Your task to perform on an android device: Add "bose soundlink" to the cart on costco.com Image 0: 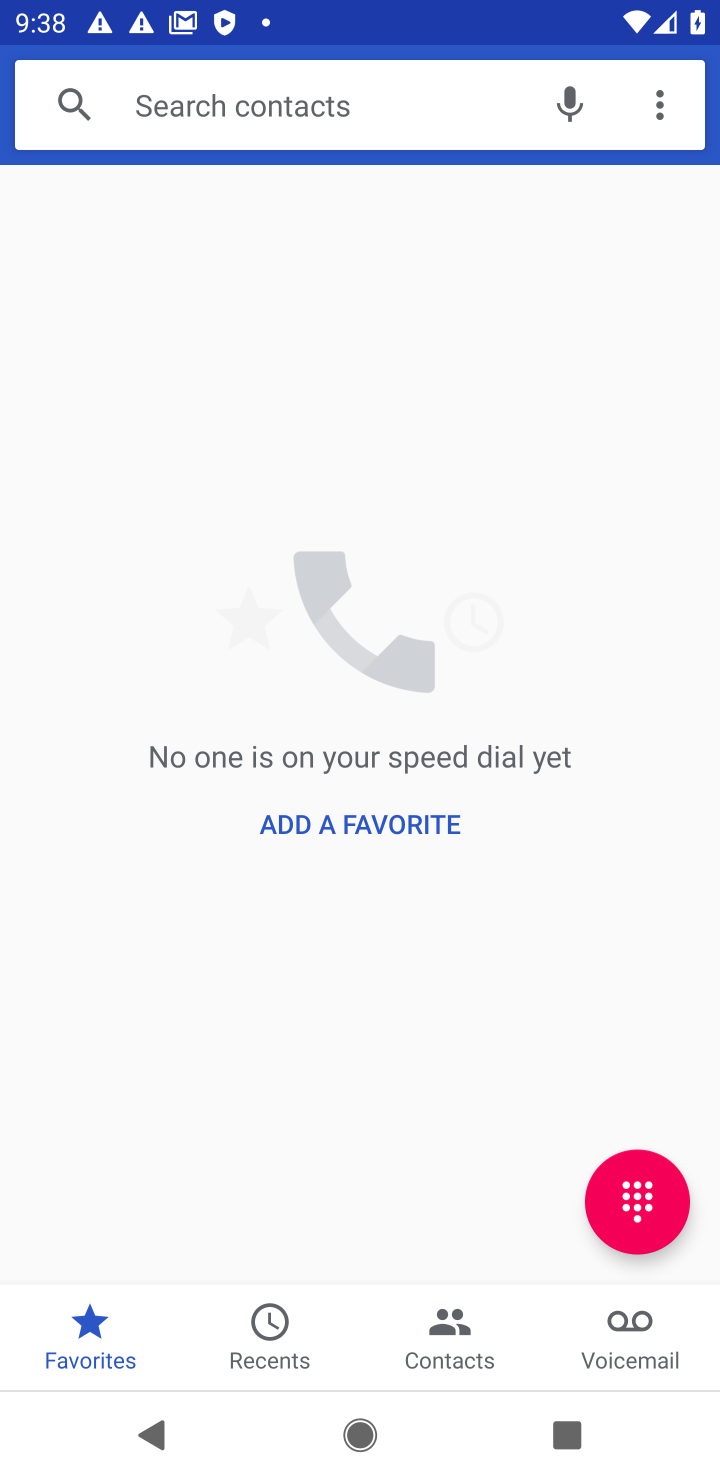
Step 0: press home button
Your task to perform on an android device: Add "bose soundlink" to the cart on costco.com Image 1: 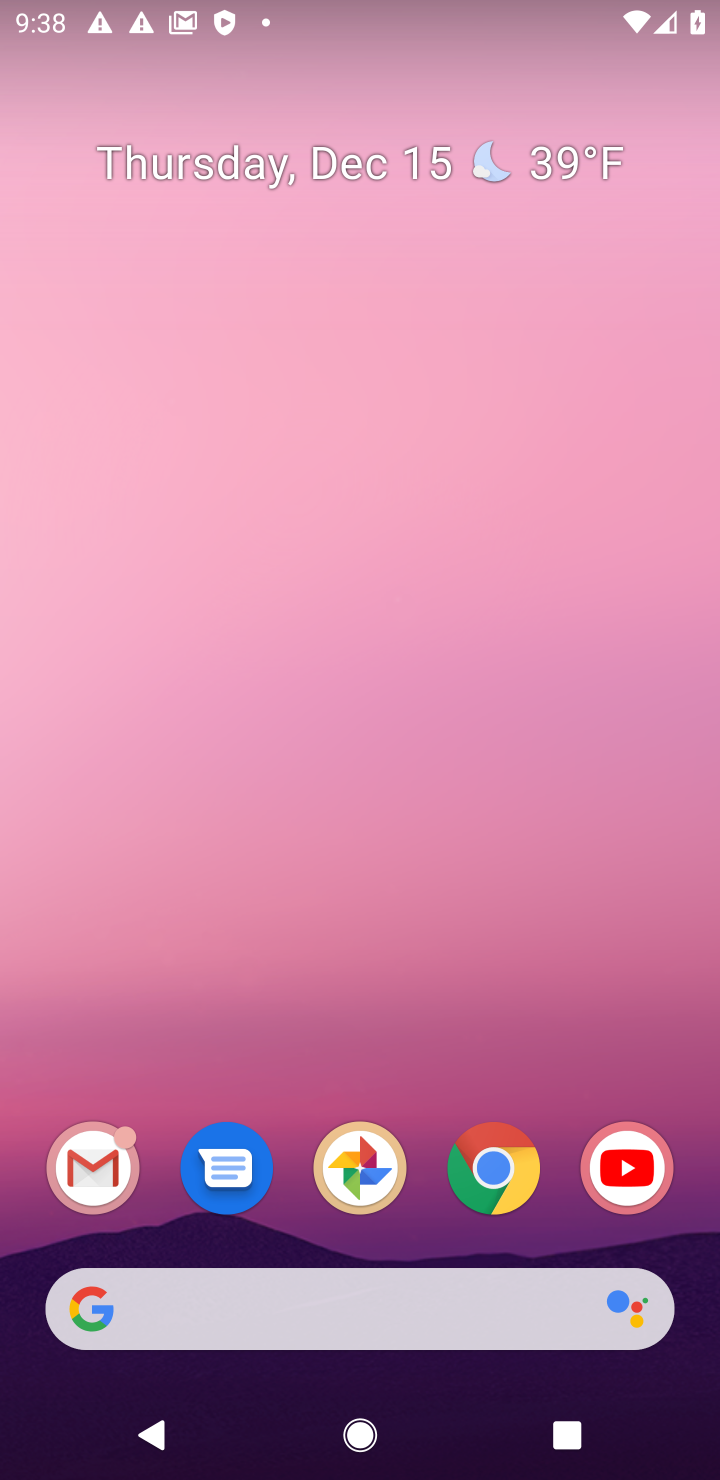
Step 1: click (490, 1173)
Your task to perform on an android device: Add "bose soundlink" to the cart on costco.com Image 2: 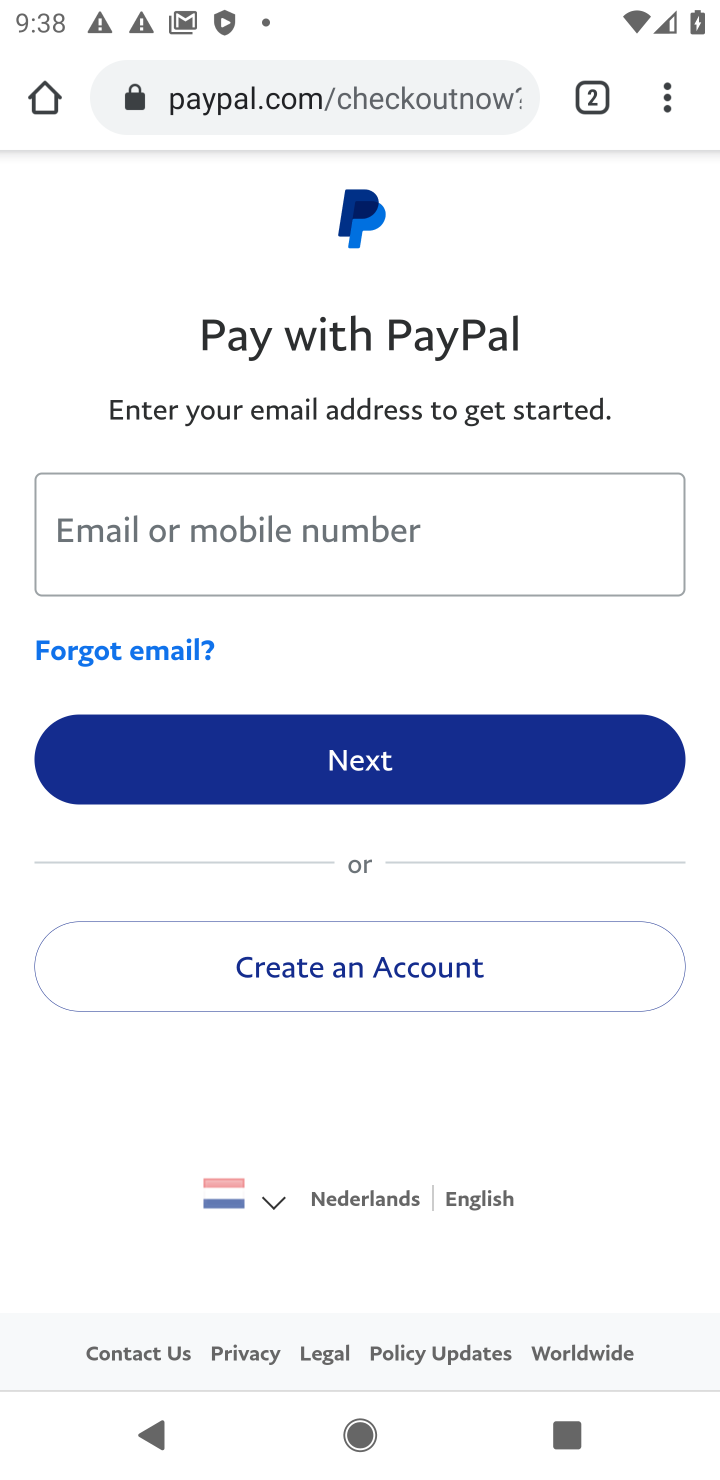
Step 2: click (312, 101)
Your task to perform on an android device: Add "bose soundlink" to the cart on costco.com Image 3: 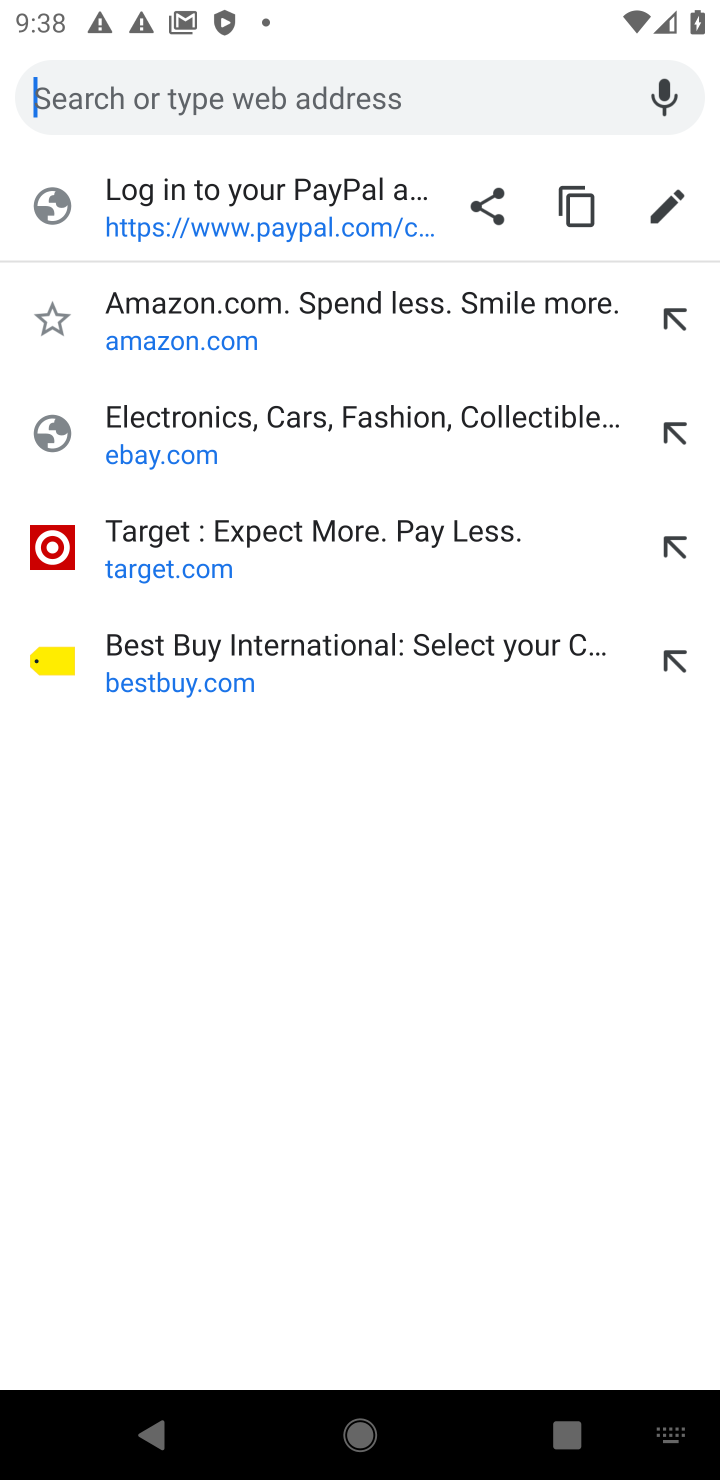
Step 3: type "COSTCO"
Your task to perform on an android device: Add "bose soundlink" to the cart on costco.com Image 4: 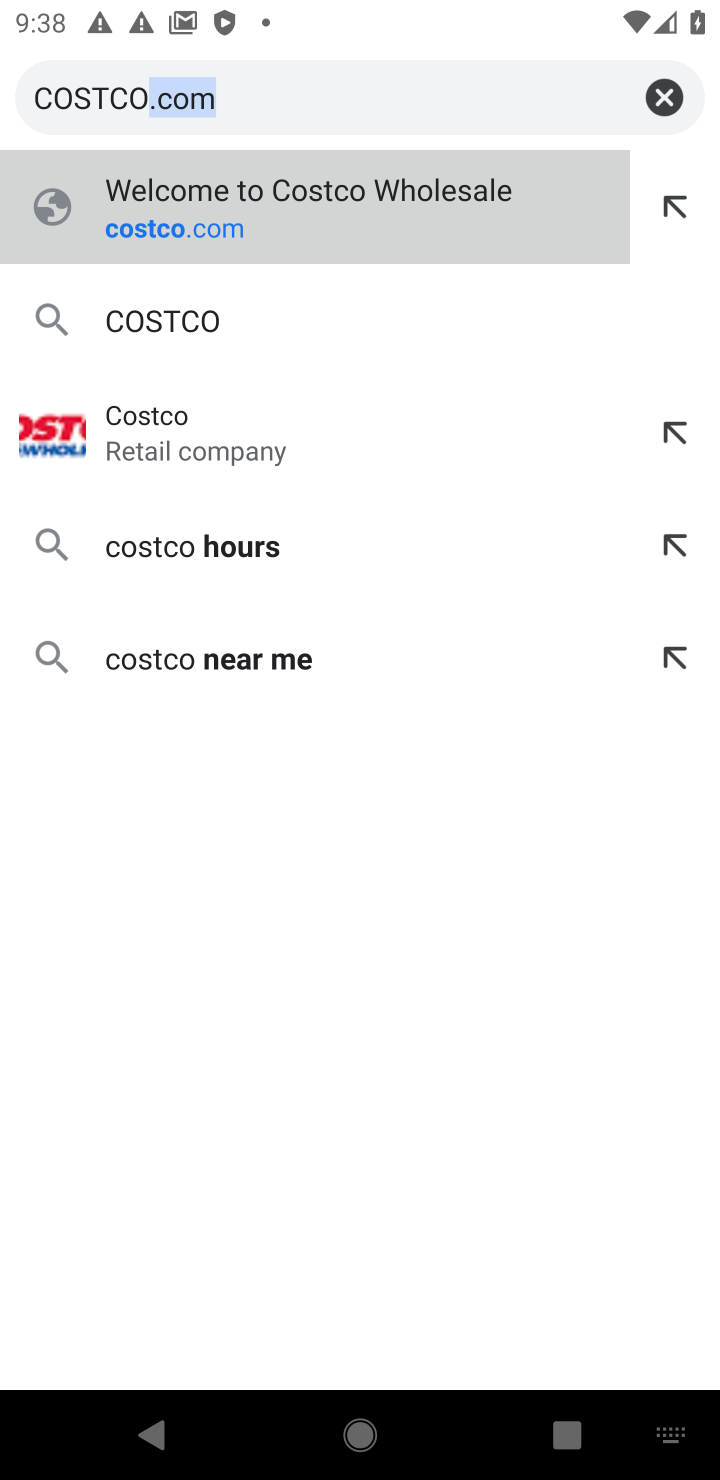
Step 4: click (343, 240)
Your task to perform on an android device: Add "bose soundlink" to the cart on costco.com Image 5: 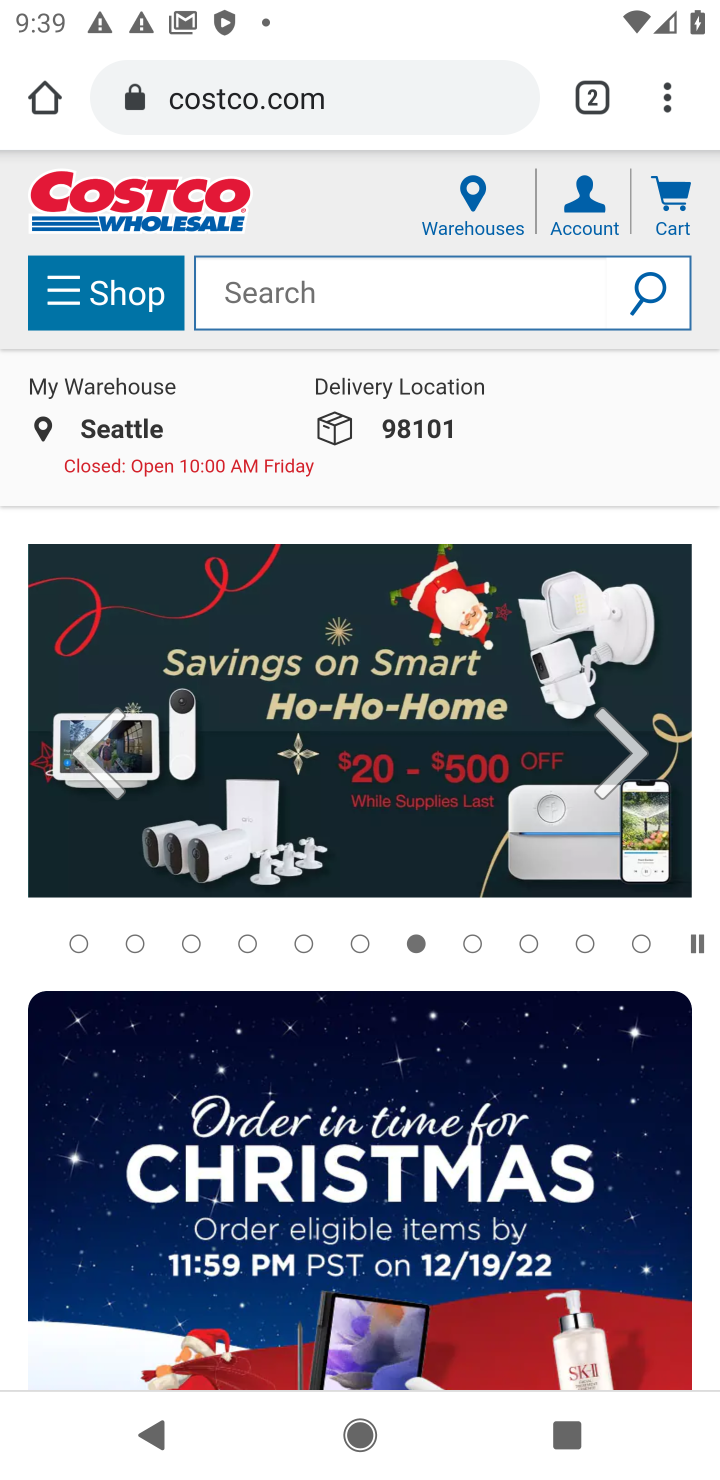
Step 5: click (400, 288)
Your task to perform on an android device: Add "bose soundlink" to the cart on costco.com Image 6: 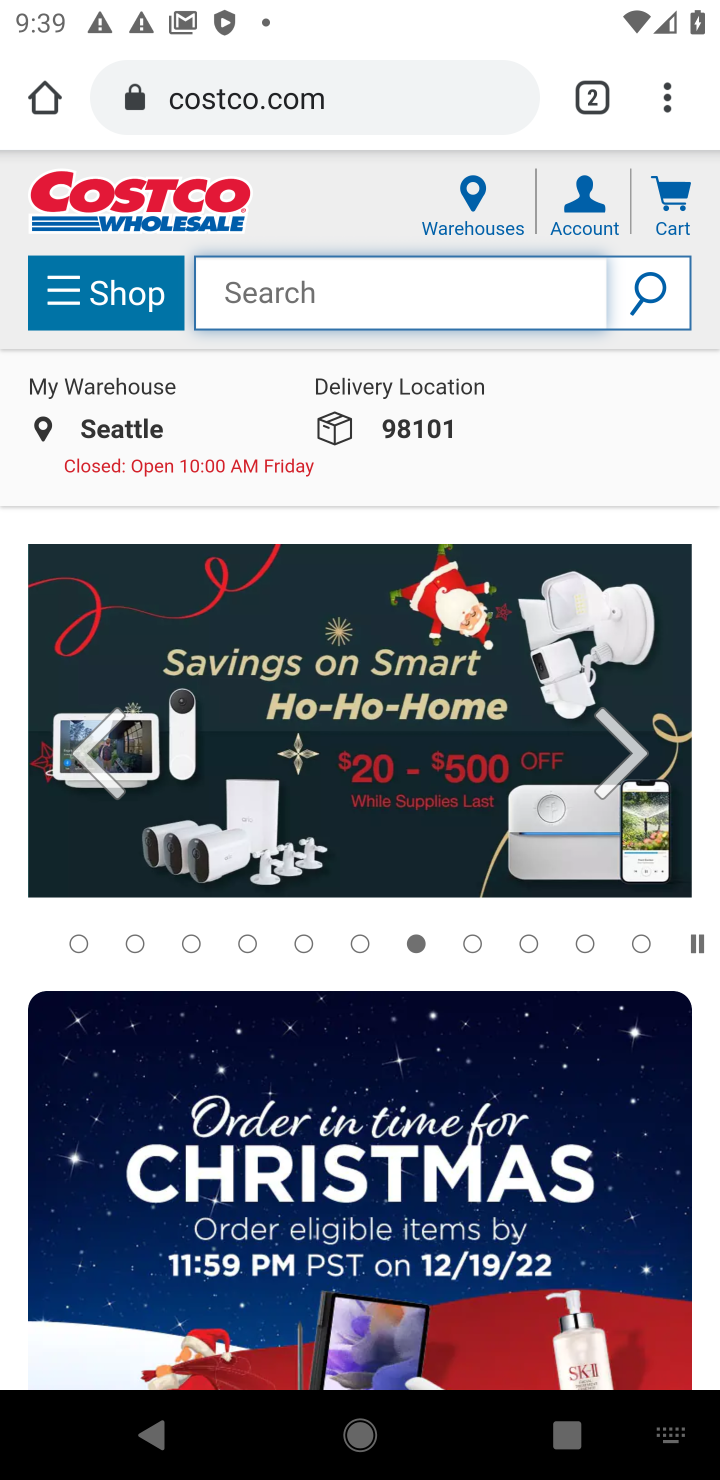
Step 6: type "bose soundlink"
Your task to perform on an android device: Add "bose soundlink" to the cart on costco.com Image 7: 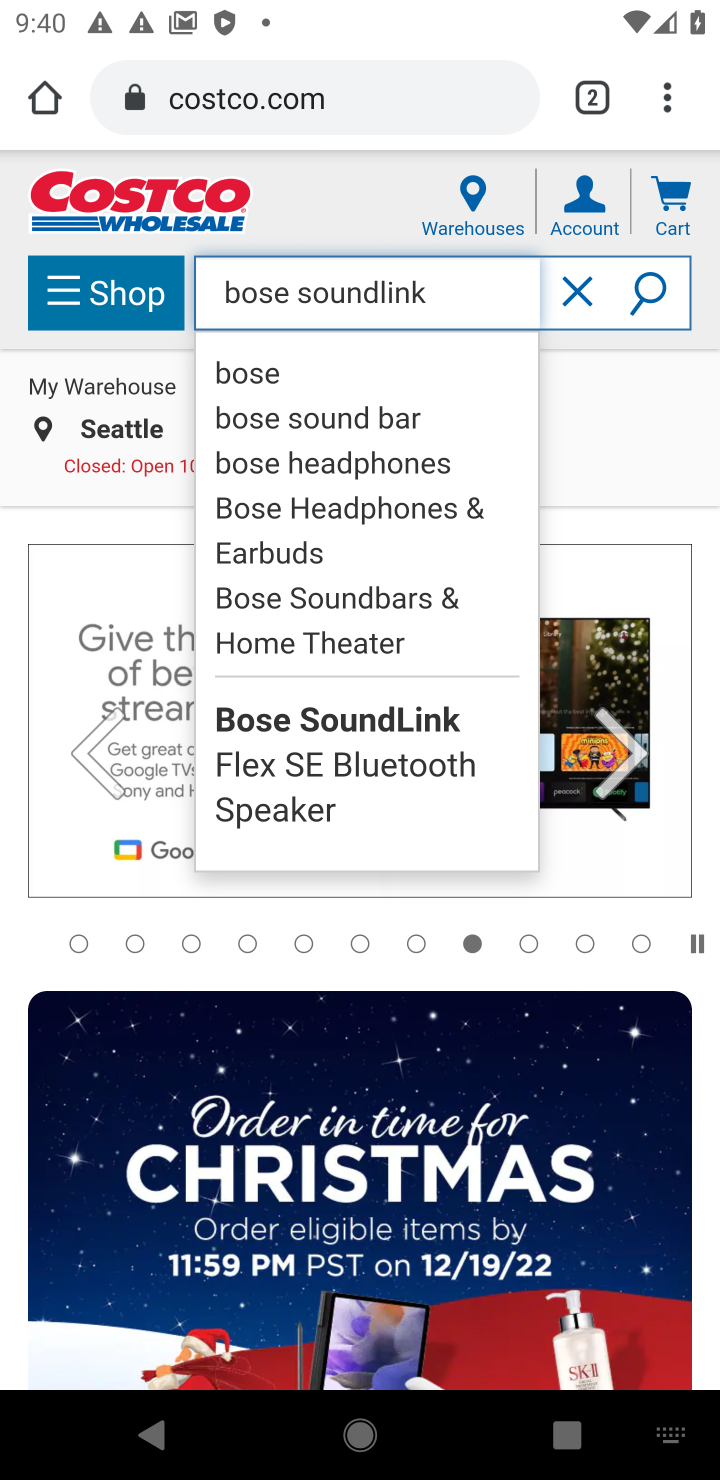
Step 7: click (272, 367)
Your task to perform on an android device: Add "bose soundlink" to the cart on costco.com Image 8: 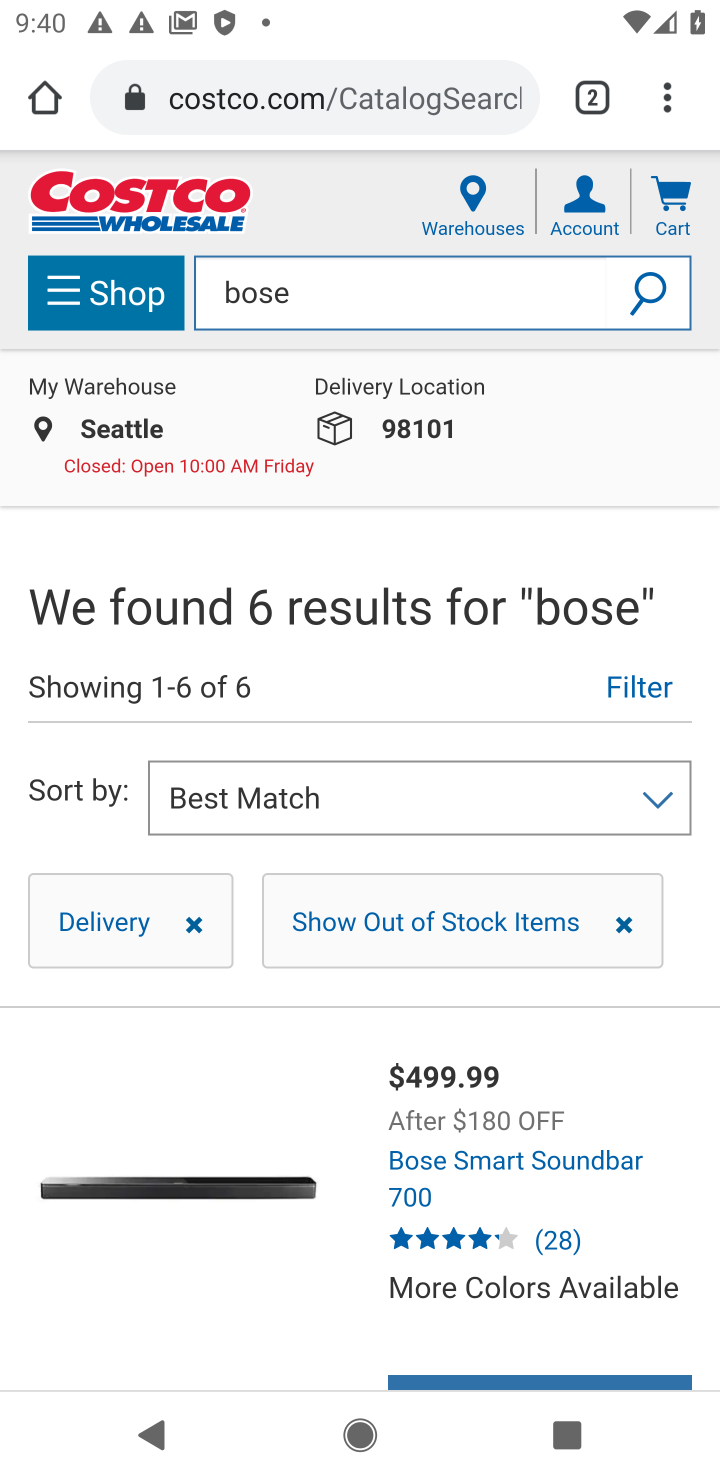
Step 8: click (262, 1130)
Your task to perform on an android device: Add "bose soundlink" to the cart on costco.com Image 9: 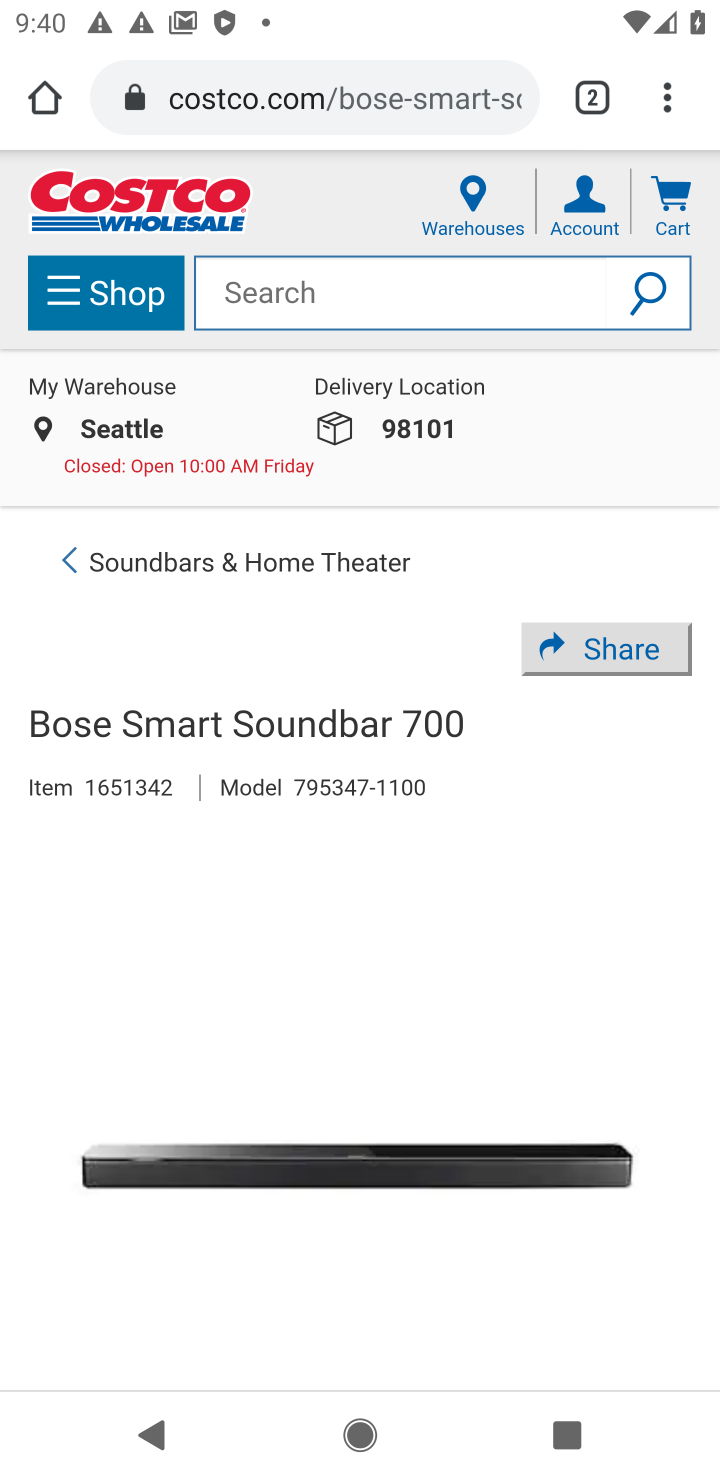
Step 9: drag from (410, 1285) to (343, 362)
Your task to perform on an android device: Add "bose soundlink" to the cart on costco.com Image 10: 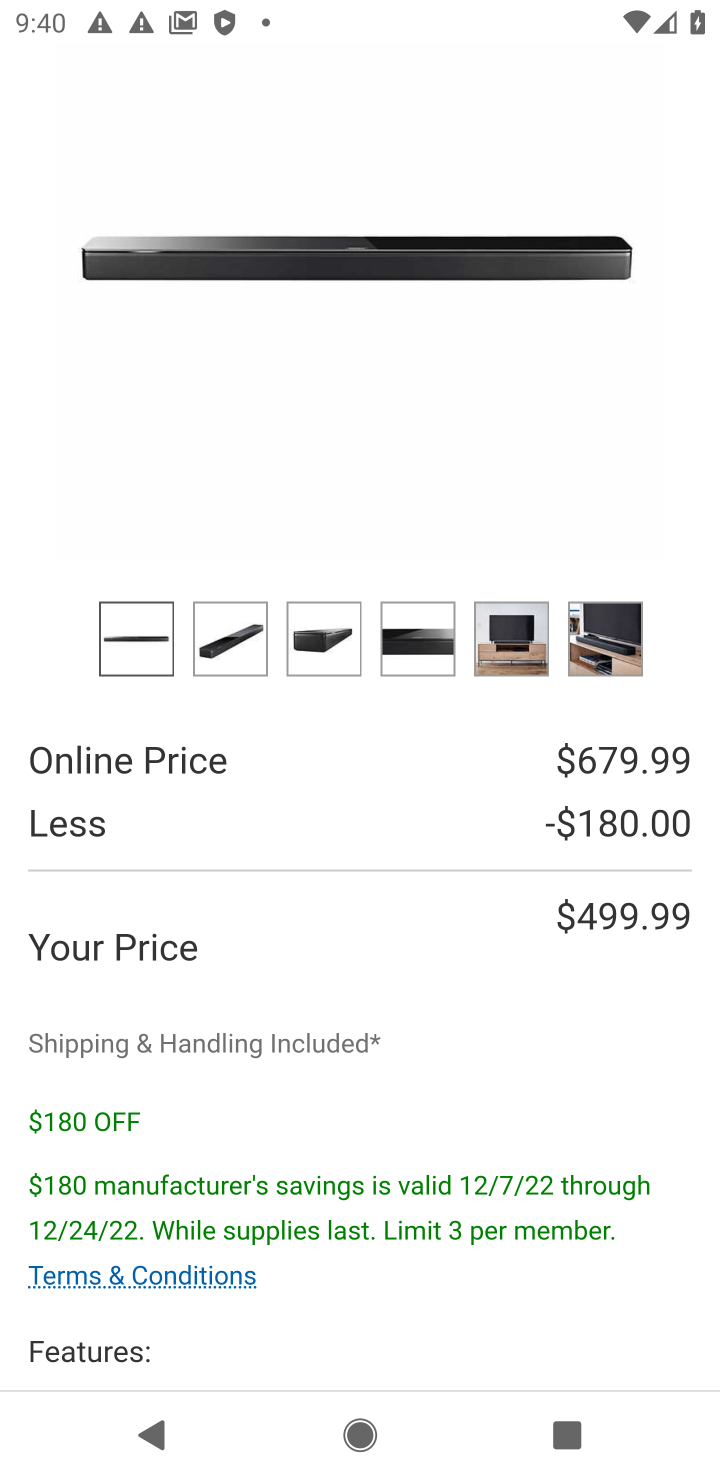
Step 10: drag from (485, 1274) to (460, 297)
Your task to perform on an android device: Add "bose soundlink" to the cart on costco.com Image 11: 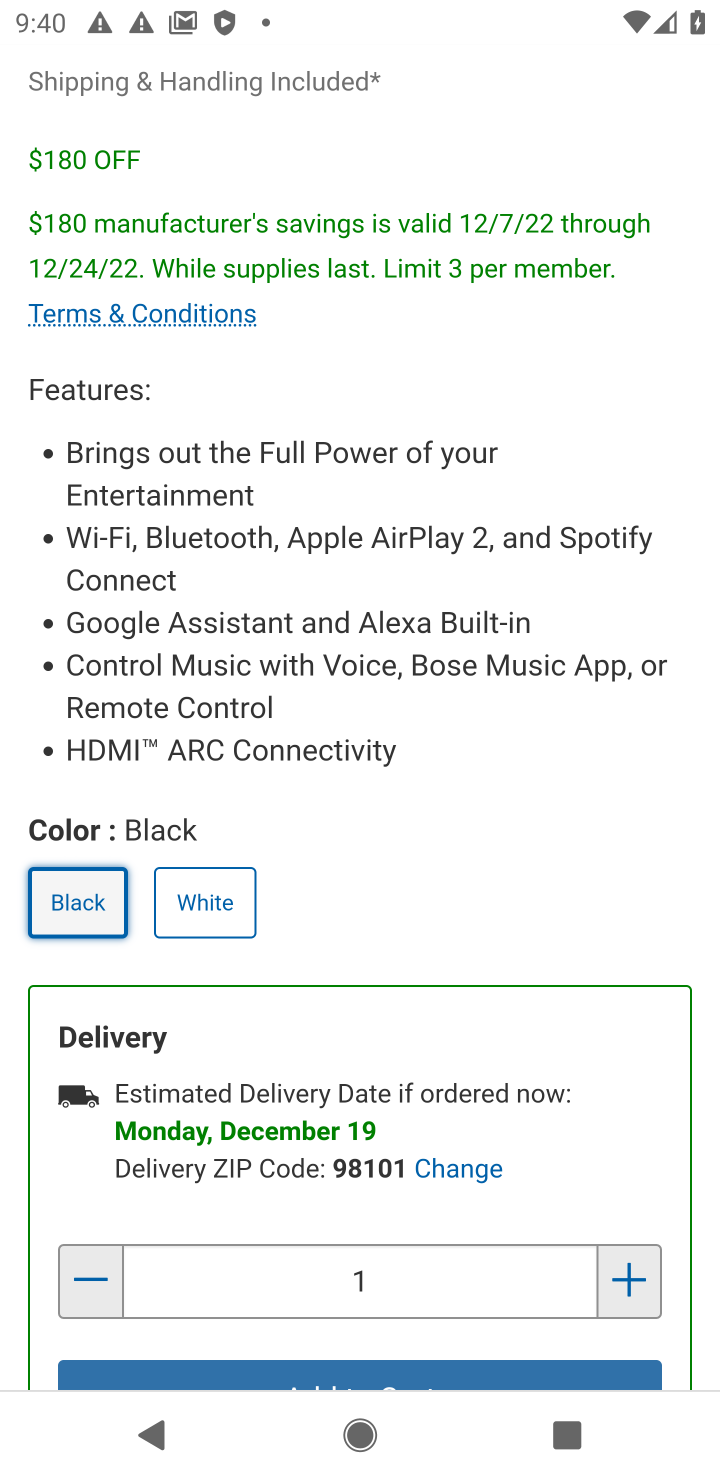
Step 11: drag from (478, 1216) to (490, 381)
Your task to perform on an android device: Add "bose soundlink" to the cart on costco.com Image 12: 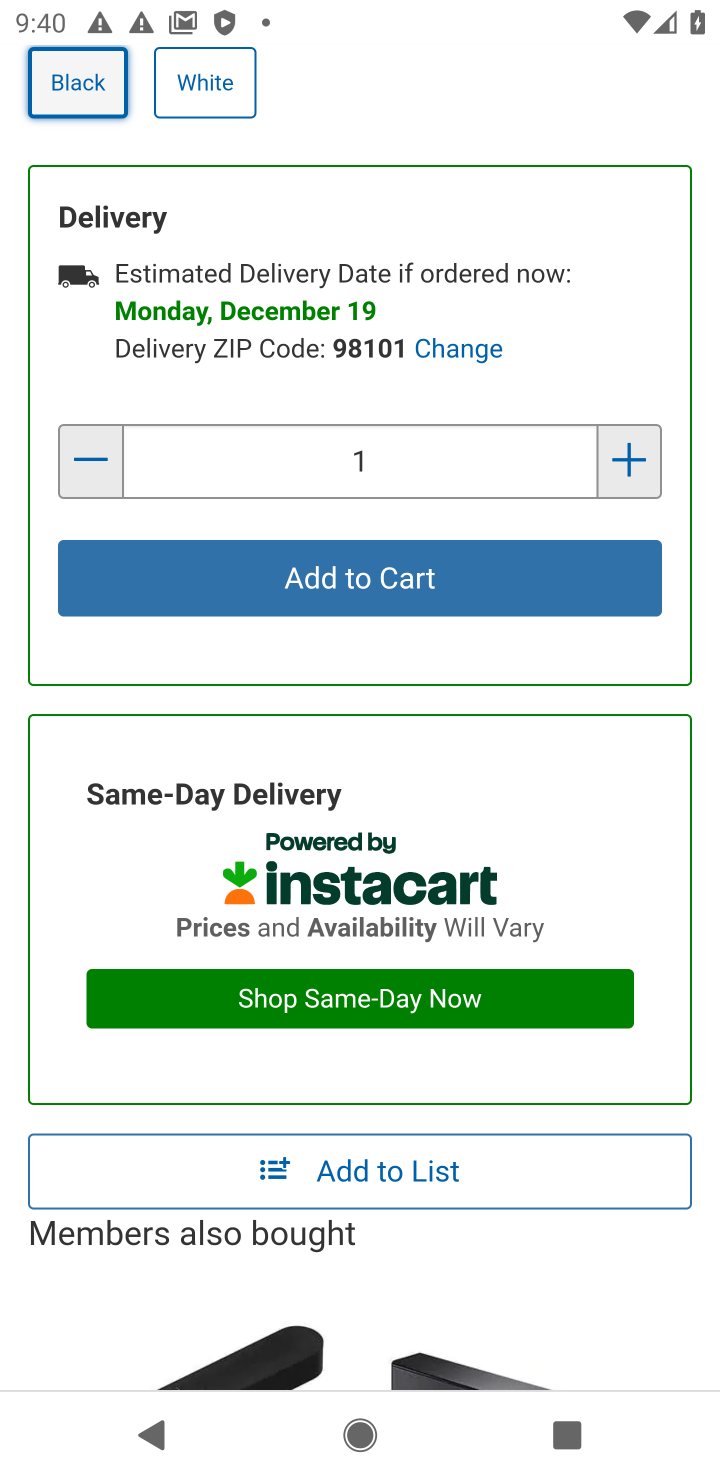
Step 12: click (427, 581)
Your task to perform on an android device: Add "bose soundlink" to the cart on costco.com Image 13: 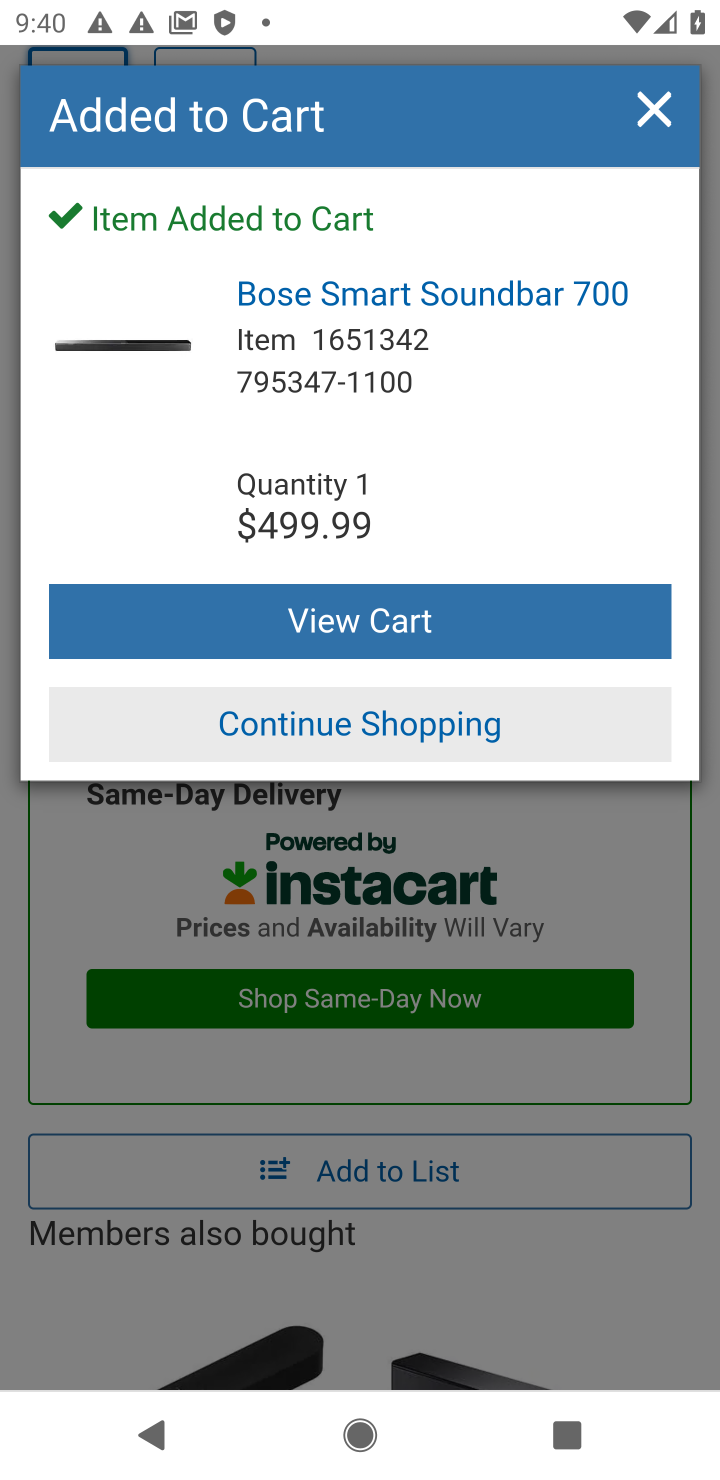
Step 13: click (356, 609)
Your task to perform on an android device: Add "bose soundlink" to the cart on costco.com Image 14: 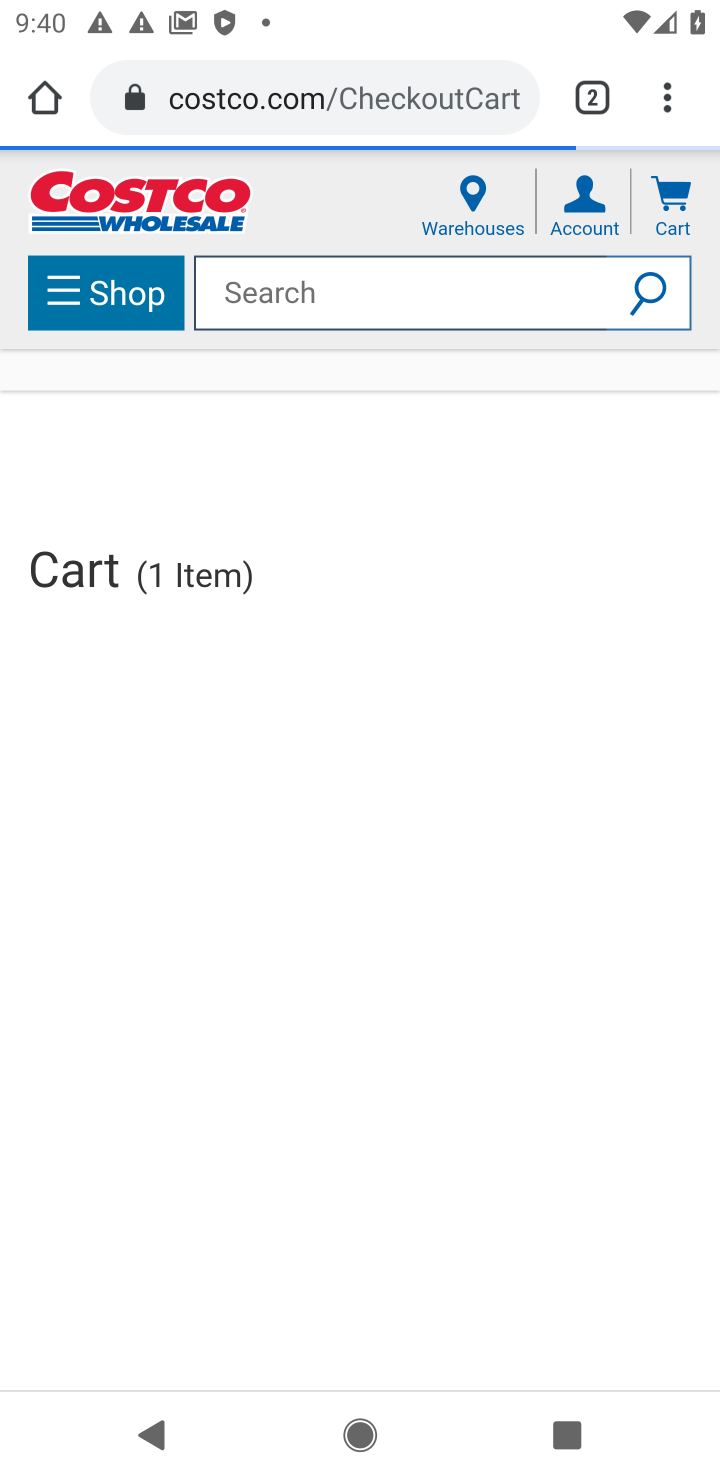
Step 14: task complete